Your task to perform on an android device: Open the phone app and click the voicemail tab. Image 0: 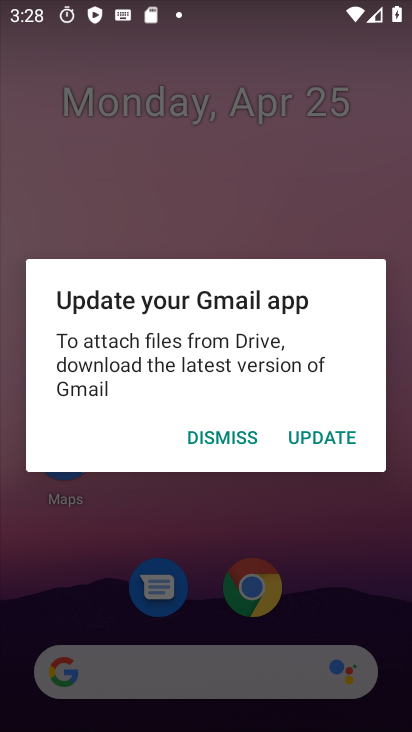
Step 0: press home button
Your task to perform on an android device: Open the phone app and click the voicemail tab. Image 1: 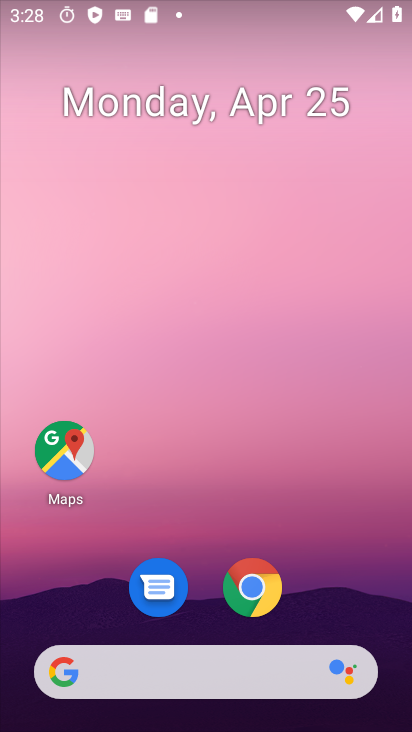
Step 1: drag from (359, 622) to (286, 108)
Your task to perform on an android device: Open the phone app and click the voicemail tab. Image 2: 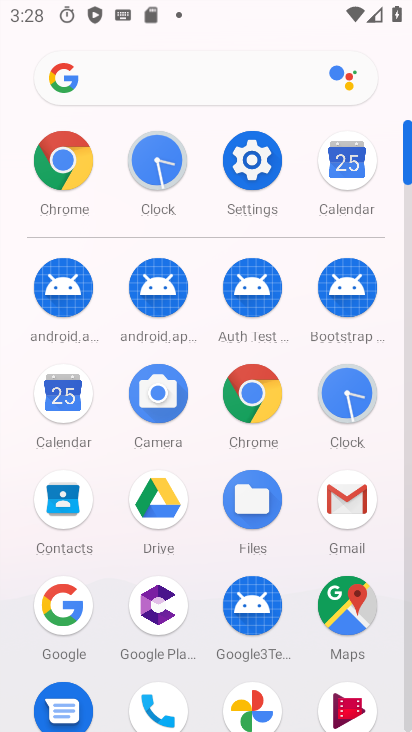
Step 2: drag from (301, 576) to (322, 234)
Your task to perform on an android device: Open the phone app and click the voicemail tab. Image 3: 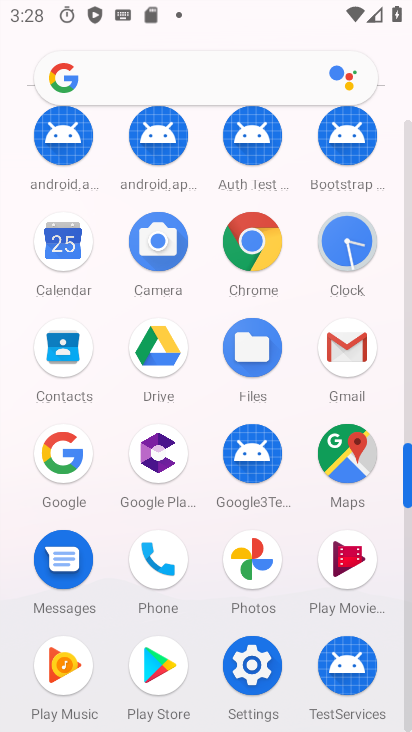
Step 3: click (164, 562)
Your task to perform on an android device: Open the phone app and click the voicemail tab. Image 4: 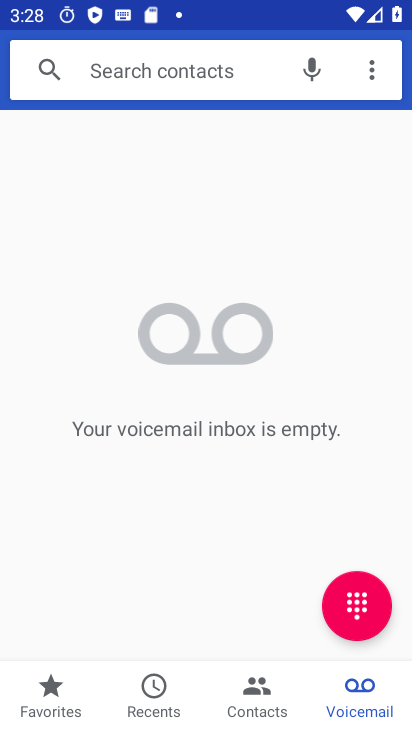
Step 4: click (369, 696)
Your task to perform on an android device: Open the phone app and click the voicemail tab. Image 5: 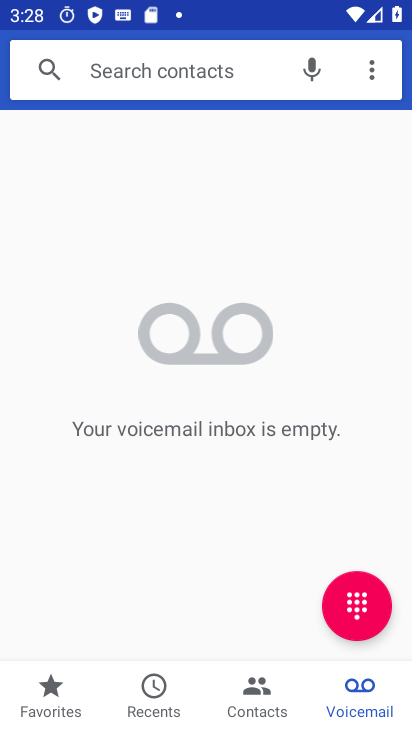
Step 5: task complete